Your task to perform on an android device: Go to Yahoo.com Image 0: 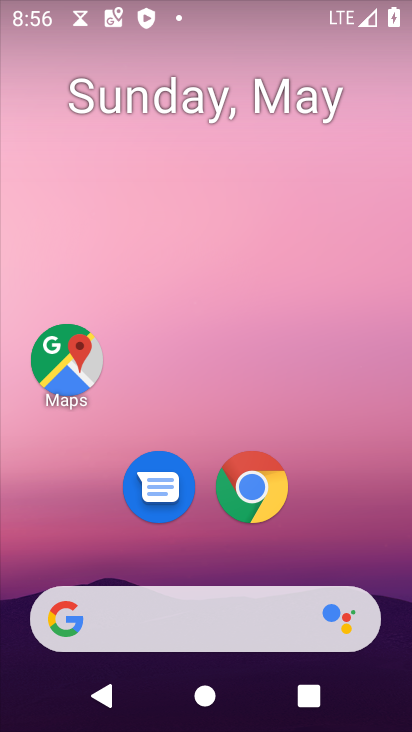
Step 0: drag from (372, 431) to (410, 118)
Your task to perform on an android device: Go to Yahoo.com Image 1: 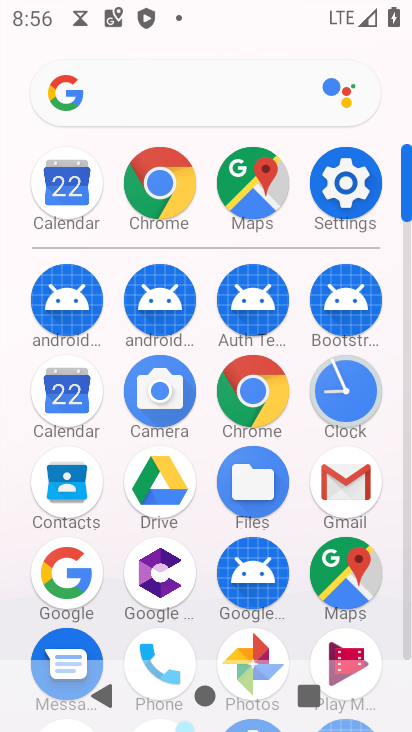
Step 1: click (168, 209)
Your task to perform on an android device: Go to Yahoo.com Image 2: 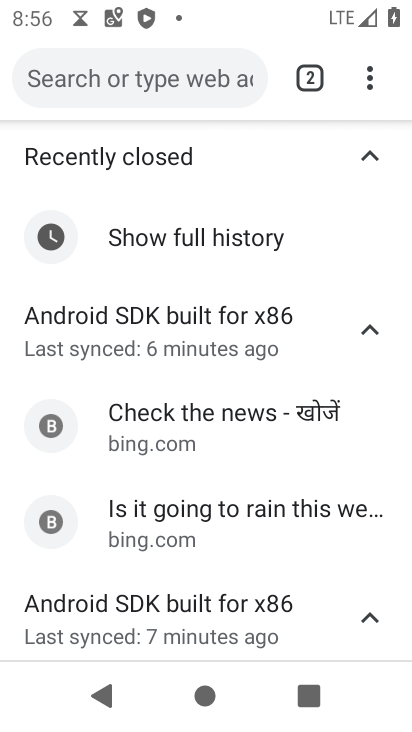
Step 2: click (175, 76)
Your task to perform on an android device: Go to Yahoo.com Image 3: 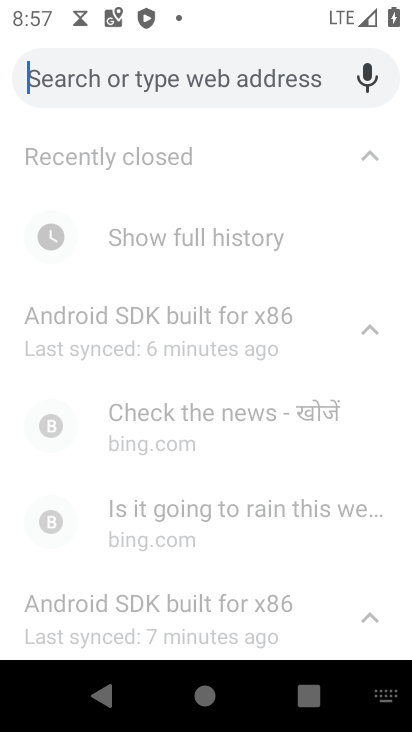
Step 3: type "yhoo"
Your task to perform on an android device: Go to Yahoo.com Image 4: 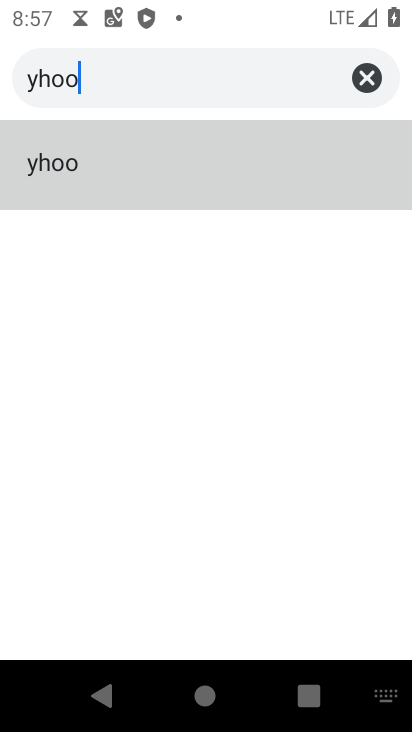
Step 4: click (375, 81)
Your task to perform on an android device: Go to Yahoo.com Image 5: 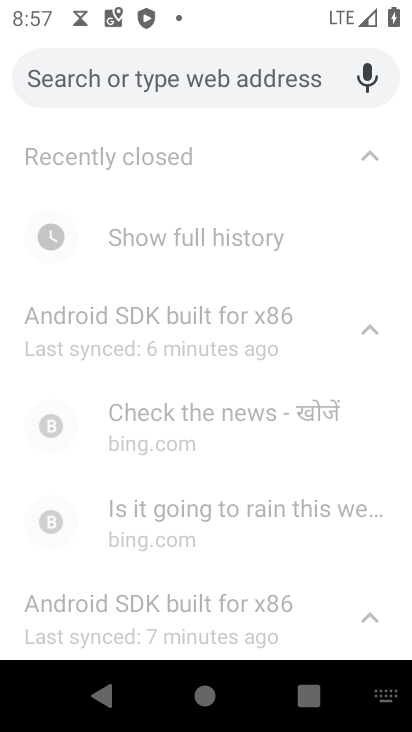
Step 5: type "yahoo"
Your task to perform on an android device: Go to Yahoo.com Image 6: 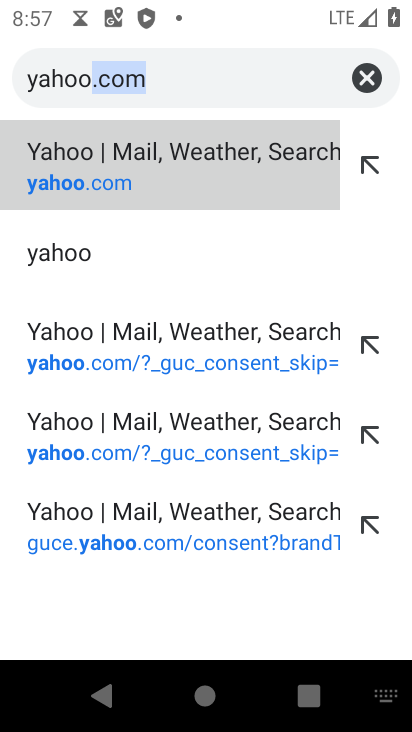
Step 6: click (121, 186)
Your task to perform on an android device: Go to Yahoo.com Image 7: 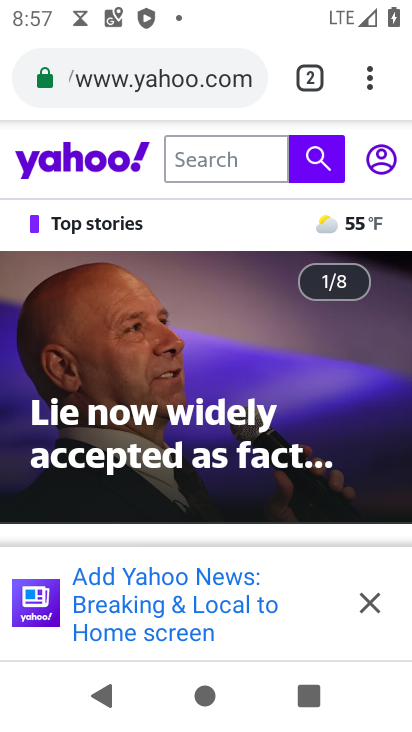
Step 7: task complete